Your task to perform on an android device: What's the weather going to be this weekend? Image 0: 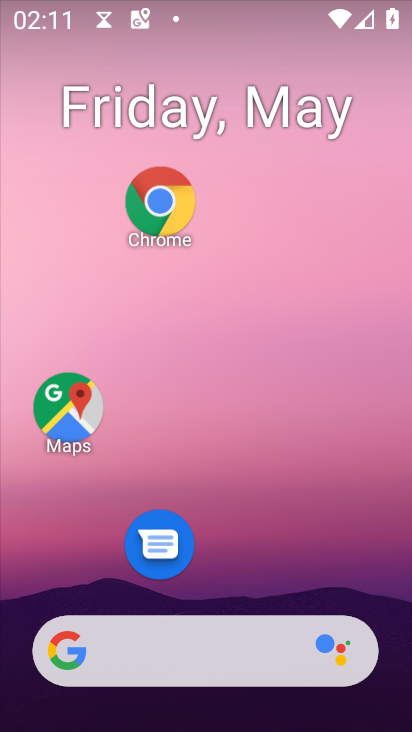
Step 0: drag from (266, 553) to (257, 113)
Your task to perform on an android device: What's the weather going to be this weekend? Image 1: 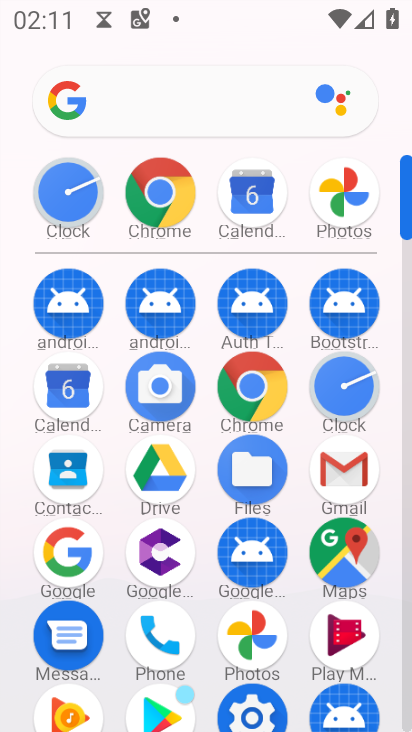
Step 1: click (70, 116)
Your task to perform on an android device: What's the weather going to be this weekend? Image 2: 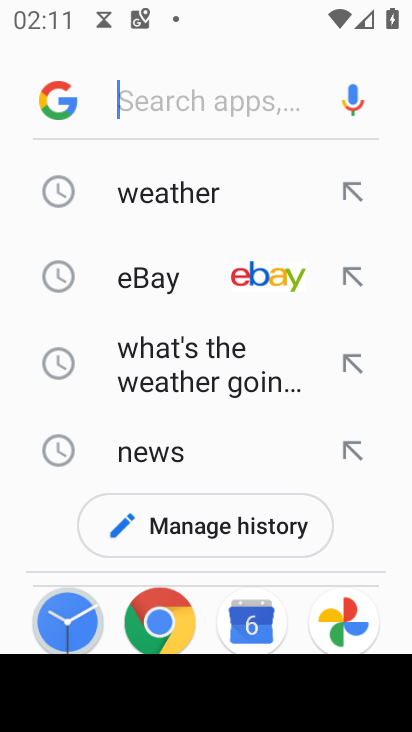
Step 2: click (171, 199)
Your task to perform on an android device: What's the weather going to be this weekend? Image 3: 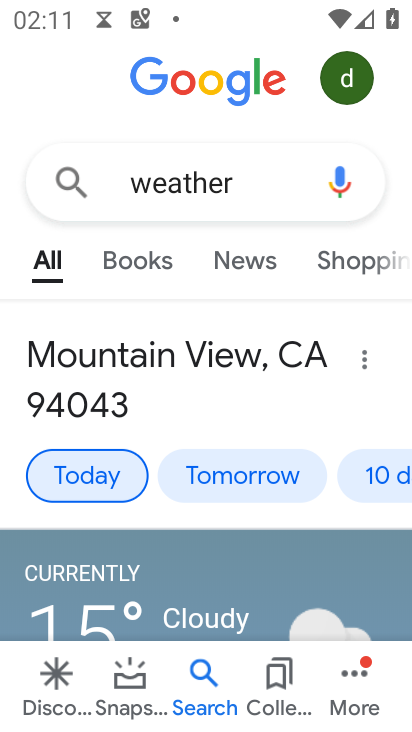
Step 3: drag from (147, 480) to (186, 207)
Your task to perform on an android device: What's the weather going to be this weekend? Image 4: 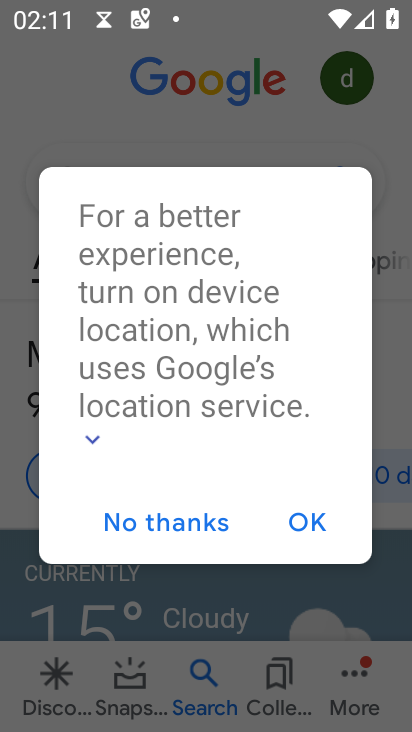
Step 4: click (320, 529)
Your task to perform on an android device: What's the weather going to be this weekend? Image 5: 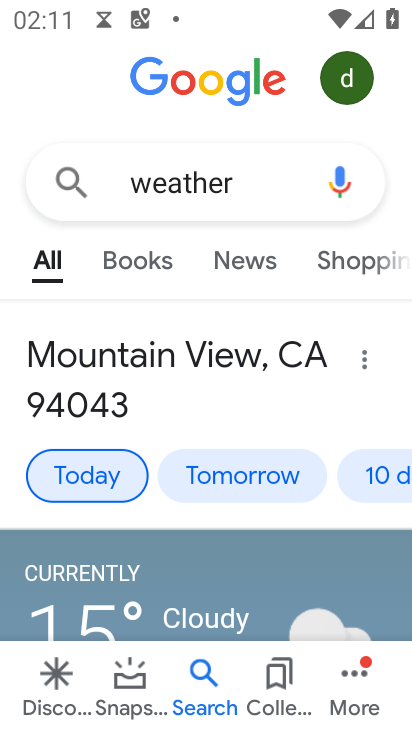
Step 5: click (373, 477)
Your task to perform on an android device: What's the weather going to be this weekend? Image 6: 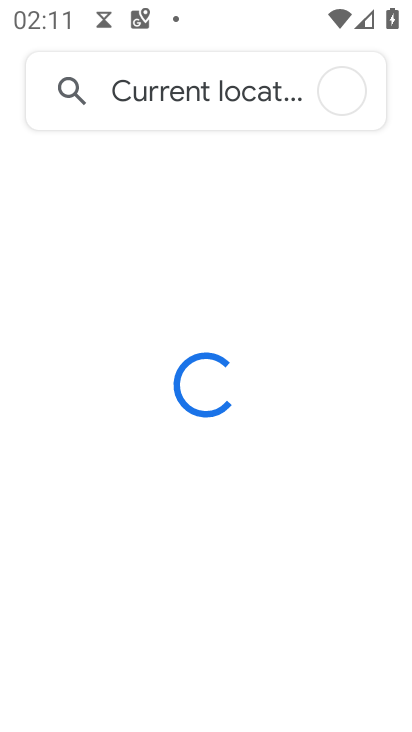
Step 6: drag from (302, 540) to (272, 334)
Your task to perform on an android device: What's the weather going to be this weekend? Image 7: 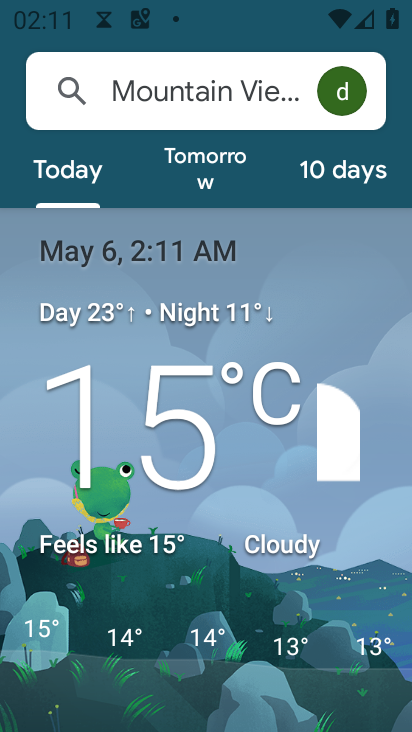
Step 7: click (340, 172)
Your task to perform on an android device: What's the weather going to be this weekend? Image 8: 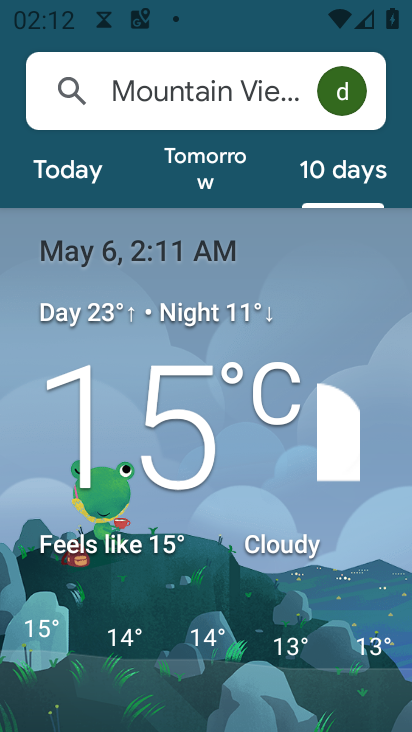
Step 8: task complete